Your task to perform on an android device: Search for the best pizza restaurants on Maps Image 0: 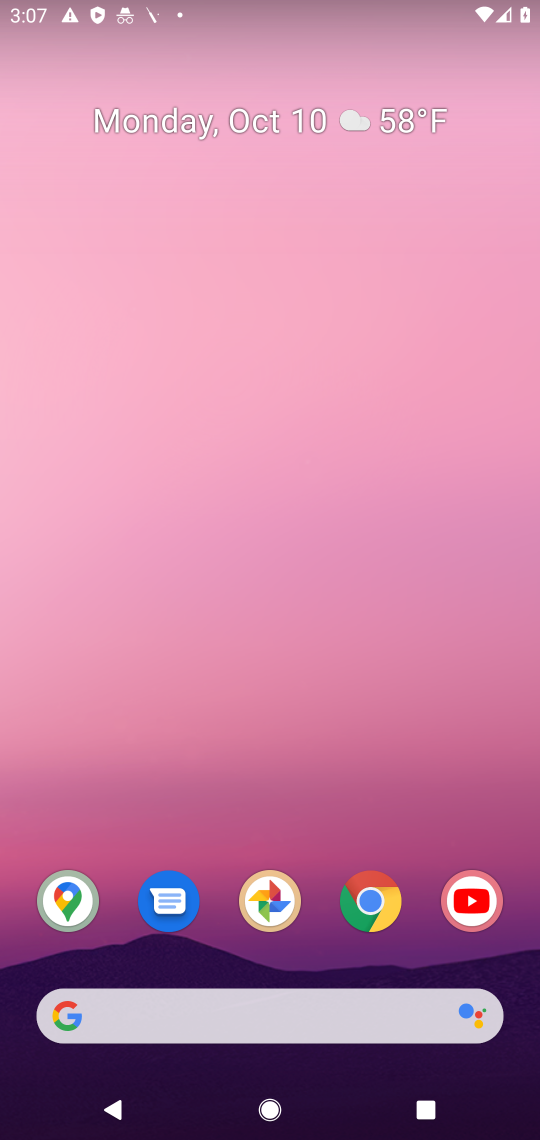
Step 0: drag from (335, 971) to (381, 466)
Your task to perform on an android device: Search for the best pizza restaurants on Maps Image 1: 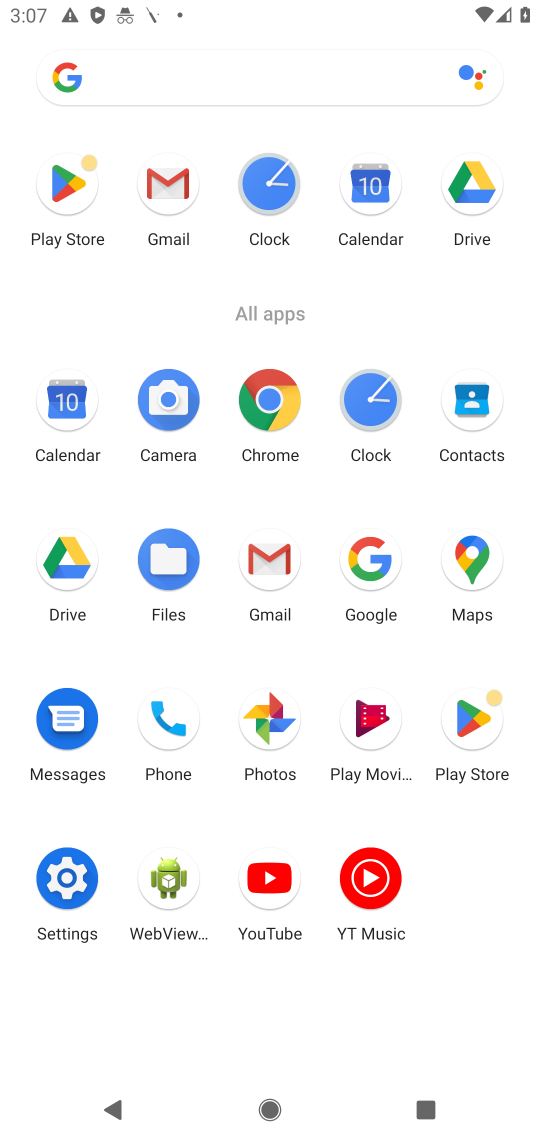
Step 1: click (468, 586)
Your task to perform on an android device: Search for the best pizza restaurants on Maps Image 2: 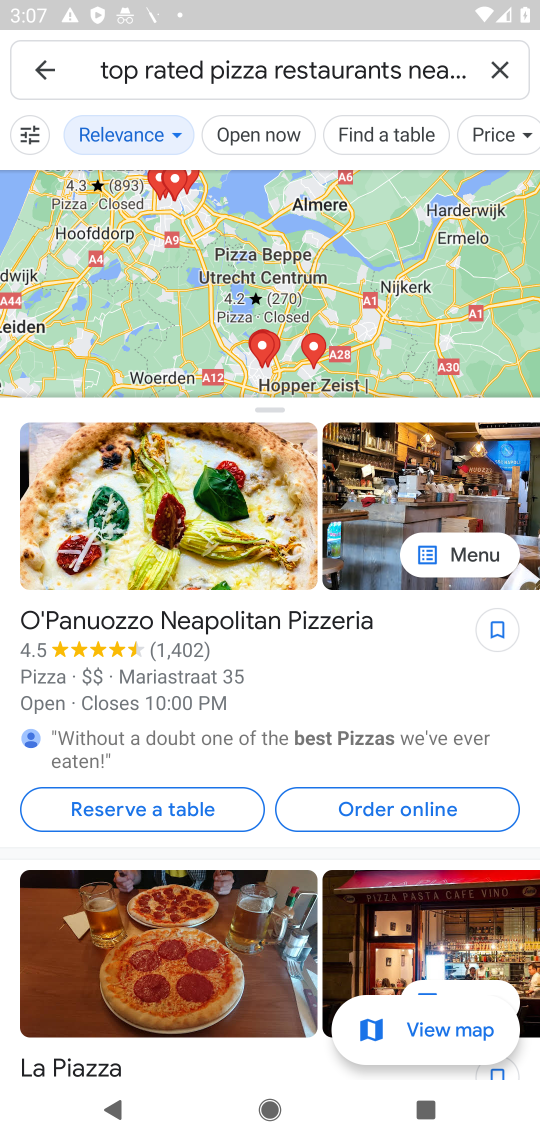
Step 2: task complete